Your task to perform on an android device: open app "NewsBreak: Local News & Alerts" (install if not already installed) and enter user name: "switch@outlook.com" and password: "fabrics" Image 0: 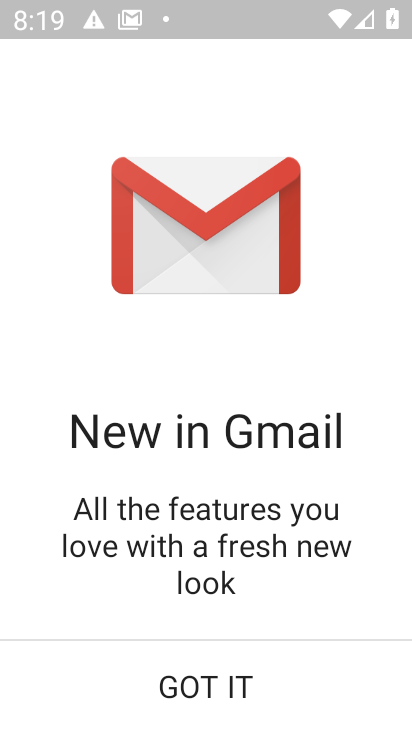
Step 0: press home button
Your task to perform on an android device: open app "NewsBreak: Local News & Alerts" (install if not already installed) and enter user name: "switch@outlook.com" and password: "fabrics" Image 1: 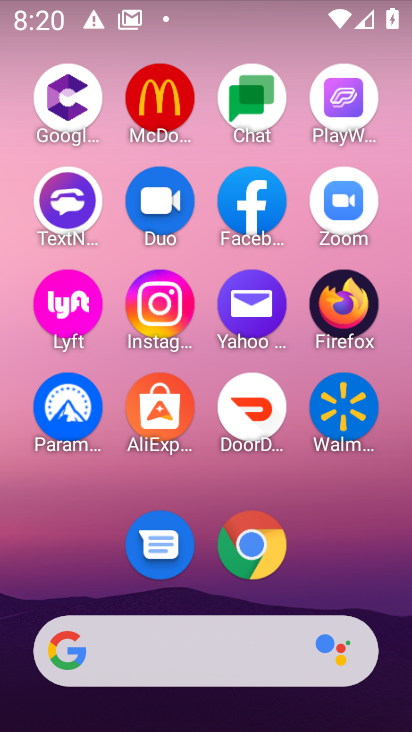
Step 1: drag from (350, 530) to (384, 60)
Your task to perform on an android device: open app "NewsBreak: Local News & Alerts" (install if not already installed) and enter user name: "switch@outlook.com" and password: "fabrics" Image 2: 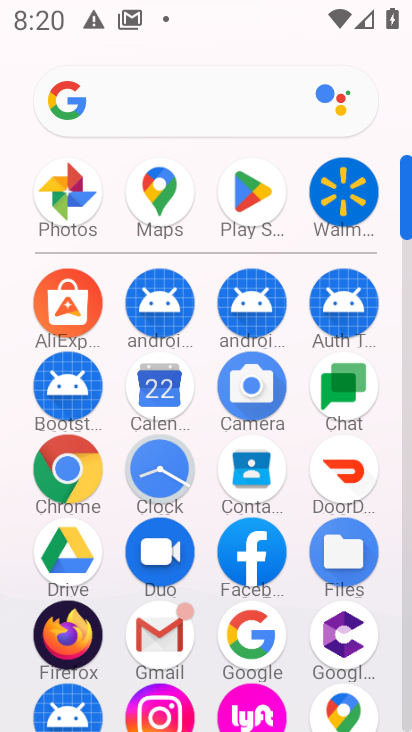
Step 2: click (250, 184)
Your task to perform on an android device: open app "NewsBreak: Local News & Alerts" (install if not already installed) and enter user name: "switch@outlook.com" and password: "fabrics" Image 3: 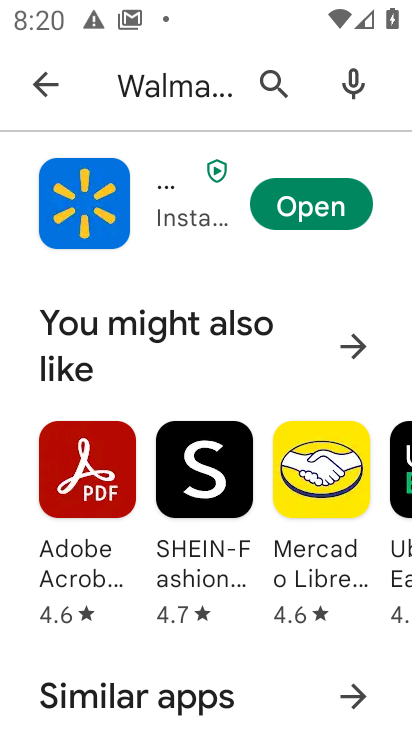
Step 3: press back button
Your task to perform on an android device: open app "NewsBreak: Local News & Alerts" (install if not already installed) and enter user name: "switch@outlook.com" and password: "fabrics" Image 4: 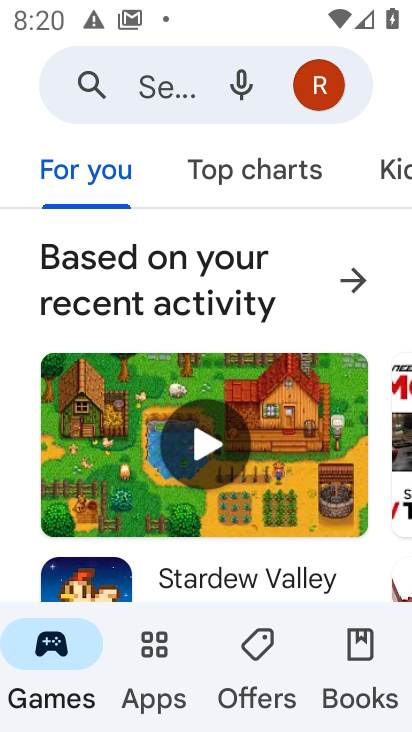
Step 4: click (168, 85)
Your task to perform on an android device: open app "NewsBreak: Local News & Alerts" (install if not already installed) and enter user name: "switch@outlook.com" and password: "fabrics" Image 5: 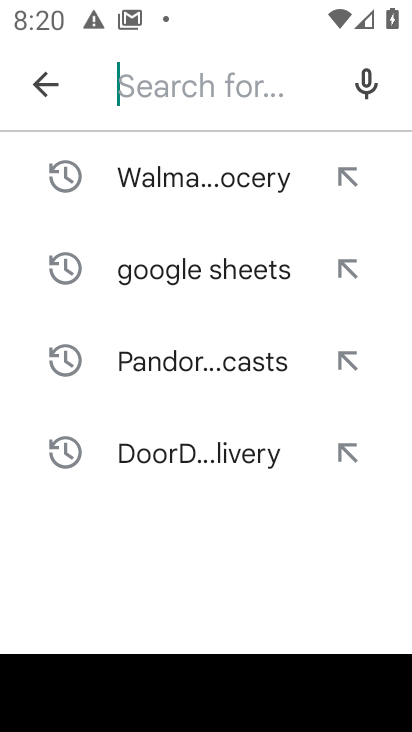
Step 5: type "NewsBreak: Local News & Alerts"
Your task to perform on an android device: open app "NewsBreak: Local News & Alerts" (install if not already installed) and enter user name: "switch@outlook.com" and password: "fabrics" Image 6: 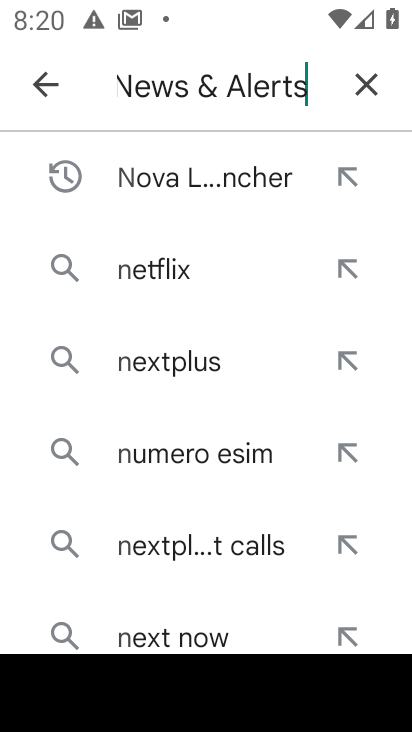
Step 6: press enter
Your task to perform on an android device: open app "NewsBreak: Local News & Alerts" (install if not already installed) and enter user name: "switch@outlook.com" and password: "fabrics" Image 7: 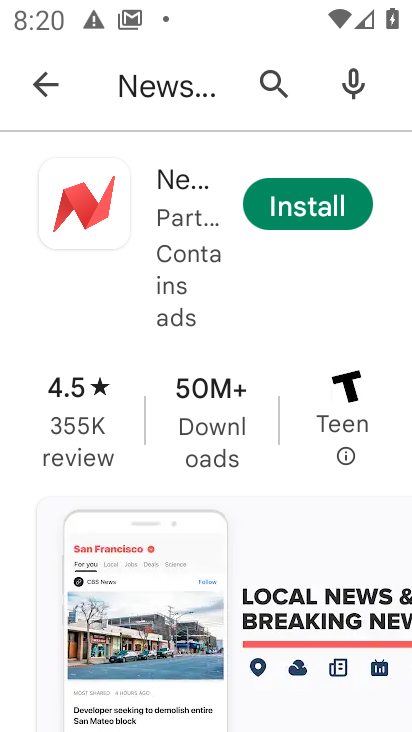
Step 7: click (327, 208)
Your task to perform on an android device: open app "NewsBreak: Local News & Alerts" (install if not already installed) and enter user name: "switch@outlook.com" and password: "fabrics" Image 8: 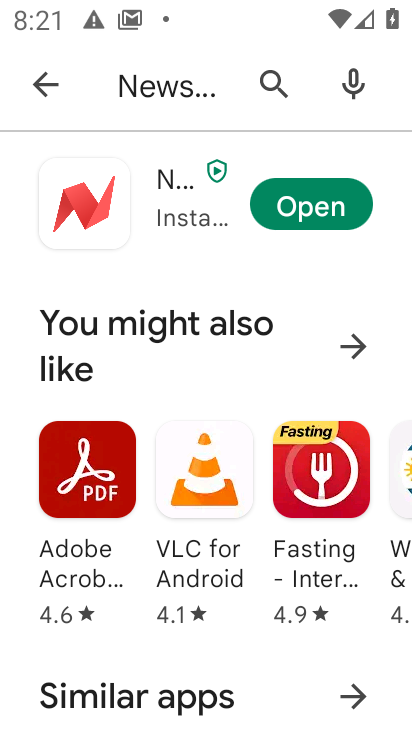
Step 8: click (325, 209)
Your task to perform on an android device: open app "NewsBreak: Local News & Alerts" (install if not already installed) and enter user name: "switch@outlook.com" and password: "fabrics" Image 9: 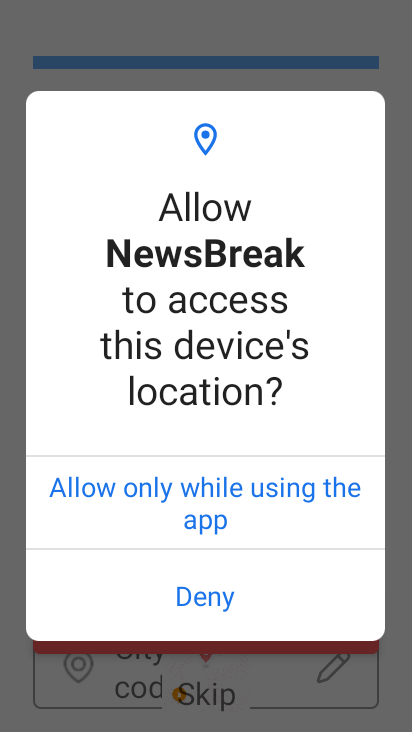
Step 9: click (263, 588)
Your task to perform on an android device: open app "NewsBreak: Local News & Alerts" (install if not already installed) and enter user name: "switch@outlook.com" and password: "fabrics" Image 10: 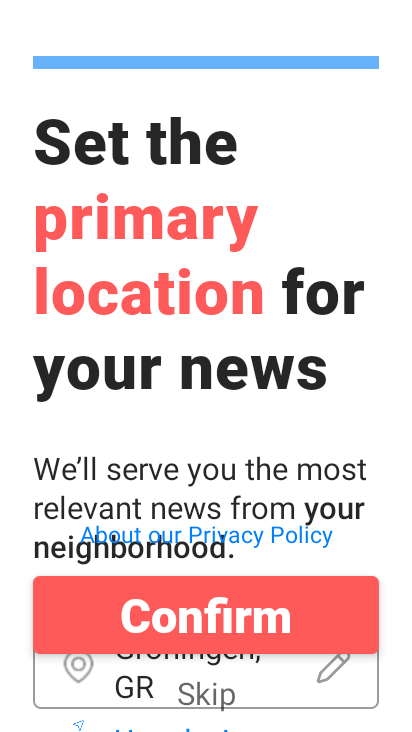
Step 10: click (212, 698)
Your task to perform on an android device: open app "NewsBreak: Local News & Alerts" (install if not already installed) and enter user name: "switch@outlook.com" and password: "fabrics" Image 11: 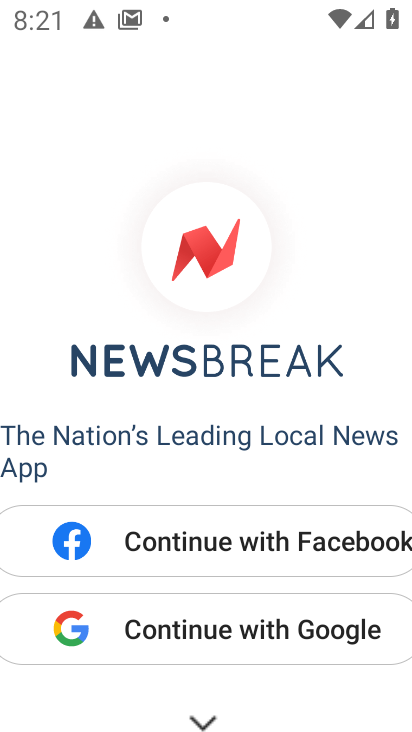
Step 11: drag from (331, 665) to (344, 307)
Your task to perform on an android device: open app "NewsBreak: Local News & Alerts" (install if not already installed) and enter user name: "switch@outlook.com" and password: "fabrics" Image 12: 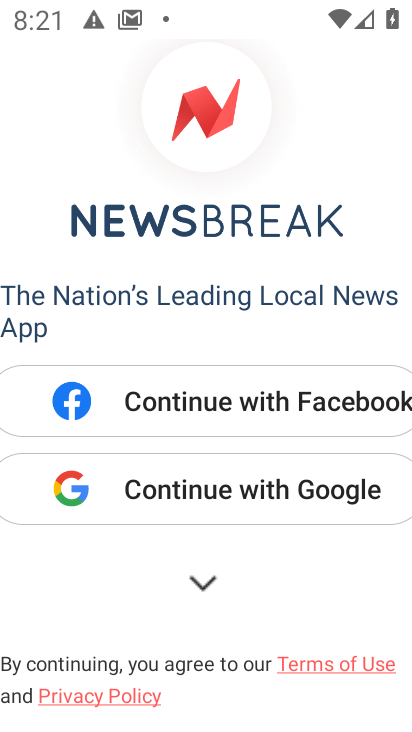
Step 12: click (205, 587)
Your task to perform on an android device: open app "NewsBreak: Local News & Alerts" (install if not already installed) and enter user name: "switch@outlook.com" and password: "fabrics" Image 13: 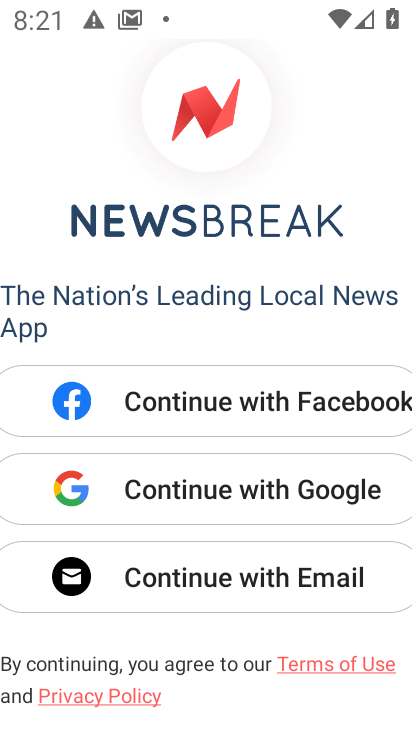
Step 13: click (209, 579)
Your task to perform on an android device: open app "NewsBreak: Local News & Alerts" (install if not already installed) and enter user name: "switch@outlook.com" and password: "fabrics" Image 14: 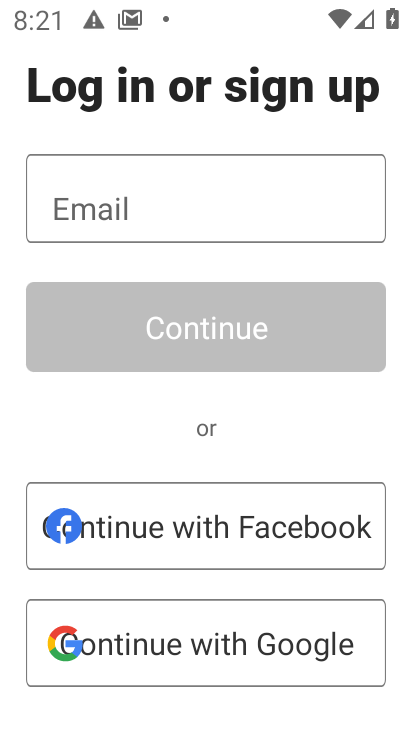
Step 14: click (195, 203)
Your task to perform on an android device: open app "NewsBreak: Local News & Alerts" (install if not already installed) and enter user name: "switch@outlook.com" and password: "fabrics" Image 15: 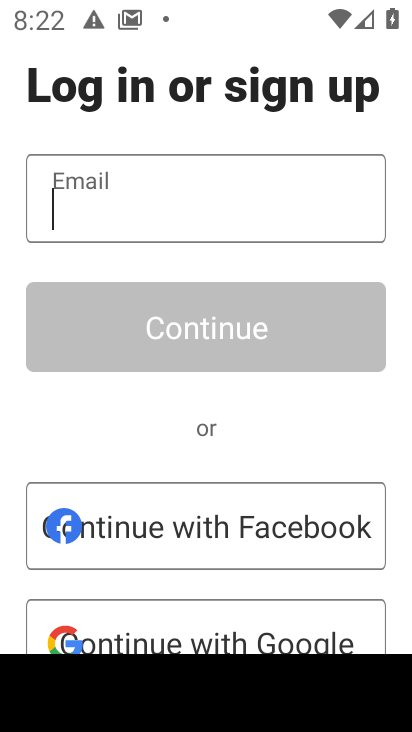
Step 15: type "switch@outlook.com"
Your task to perform on an android device: open app "NewsBreak: Local News & Alerts" (install if not already installed) and enter user name: "switch@outlook.com" and password: "fabrics" Image 16: 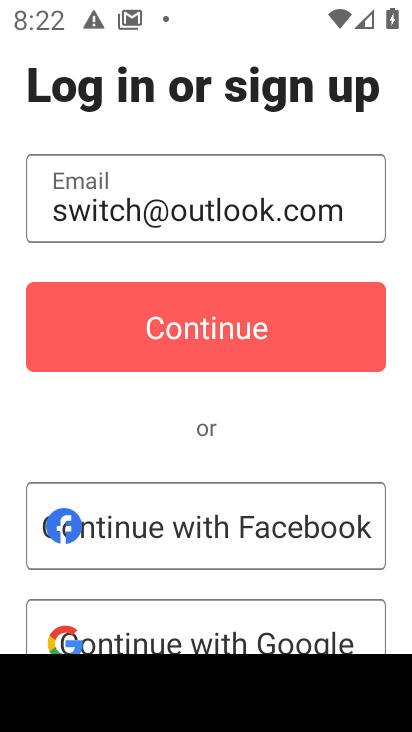
Step 16: click (291, 336)
Your task to perform on an android device: open app "NewsBreak: Local News & Alerts" (install if not already installed) and enter user name: "switch@outlook.com" and password: "fabrics" Image 17: 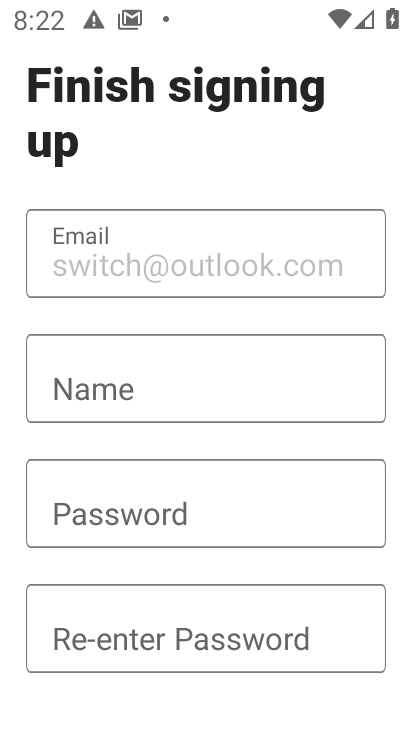
Step 17: click (214, 511)
Your task to perform on an android device: open app "NewsBreak: Local News & Alerts" (install if not already installed) and enter user name: "switch@outlook.com" and password: "fabrics" Image 18: 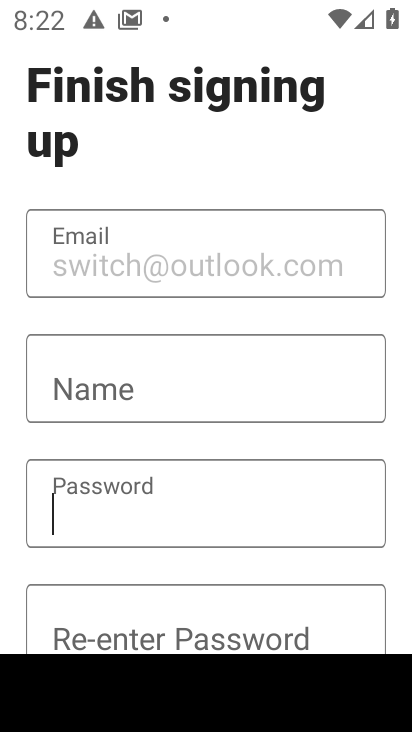
Step 18: type "fabrics"
Your task to perform on an android device: open app "NewsBreak: Local News & Alerts" (install if not already installed) and enter user name: "switch@outlook.com" and password: "fabrics" Image 19: 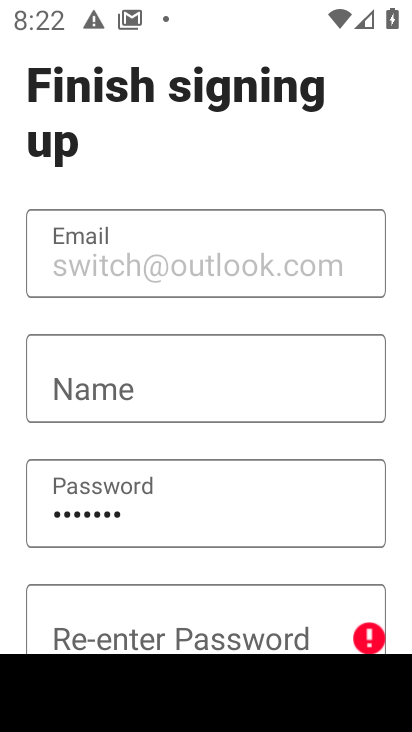
Step 19: task complete